Your task to perform on an android device: check google app version Image 0: 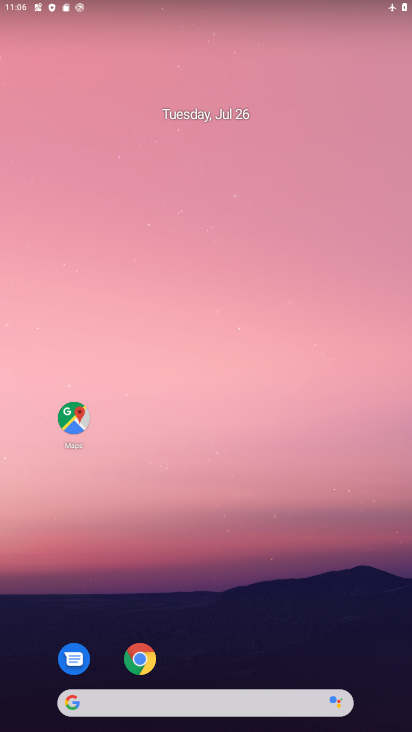
Step 0: drag from (200, 707) to (208, 13)
Your task to perform on an android device: check google app version Image 1: 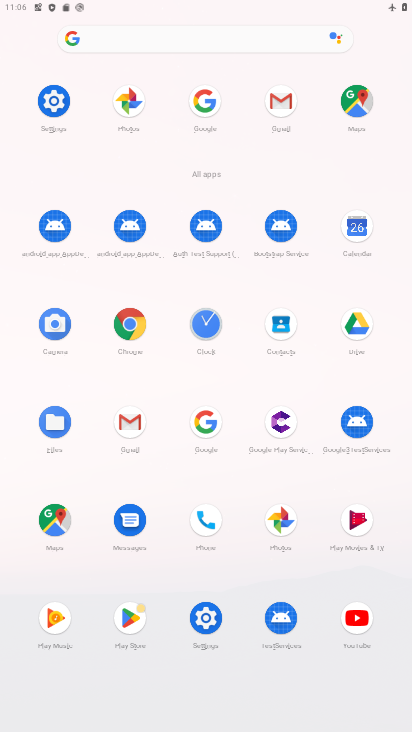
Step 1: click (204, 418)
Your task to perform on an android device: check google app version Image 2: 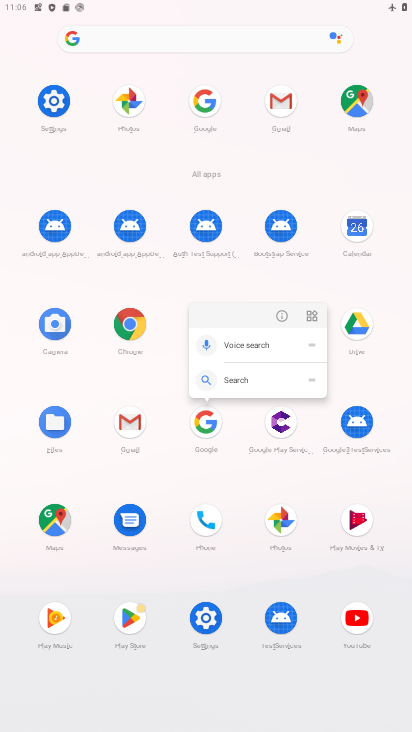
Step 2: click (282, 312)
Your task to perform on an android device: check google app version Image 3: 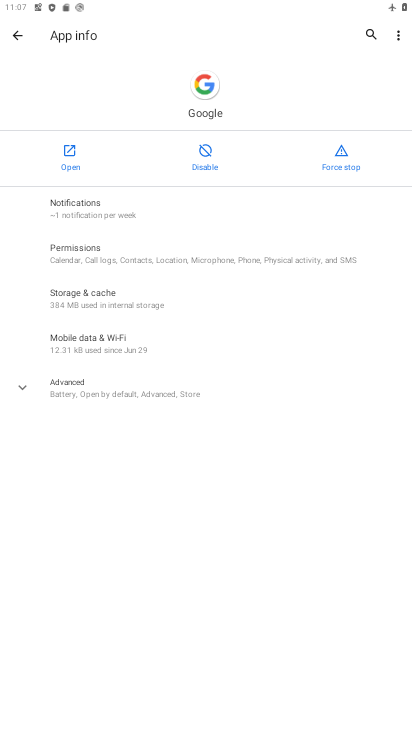
Step 3: click (82, 388)
Your task to perform on an android device: check google app version Image 4: 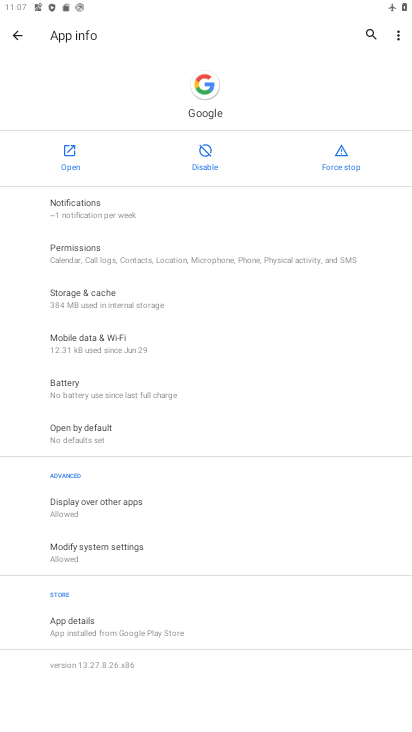
Step 4: task complete